Your task to perform on an android device: Go to network settings Image 0: 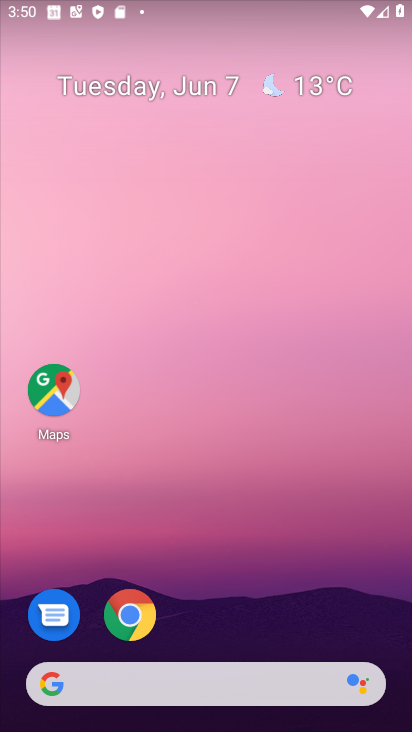
Step 0: drag from (212, 640) to (276, 2)
Your task to perform on an android device: Go to network settings Image 1: 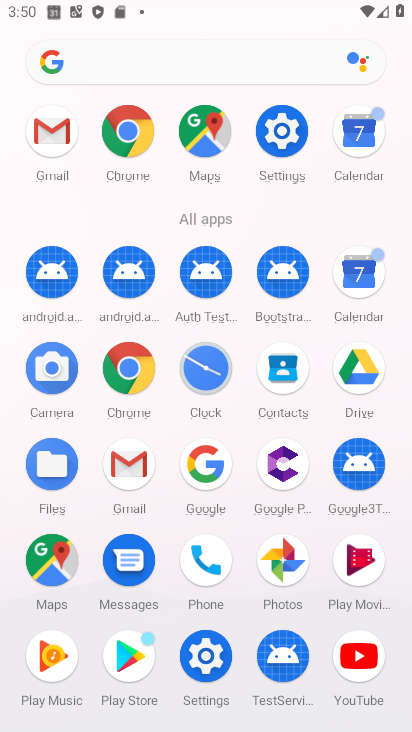
Step 1: click (202, 652)
Your task to perform on an android device: Go to network settings Image 2: 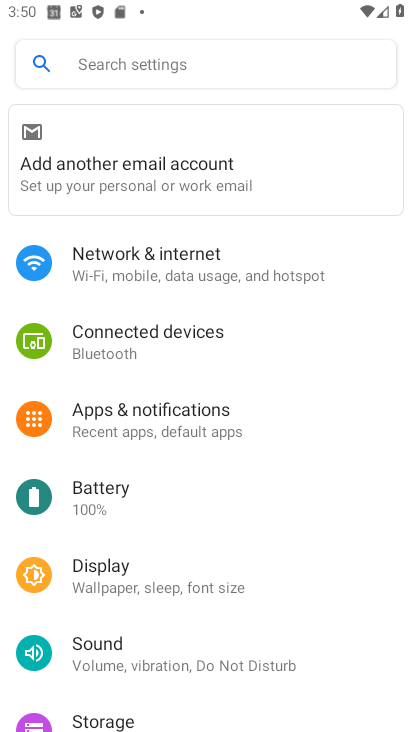
Step 2: click (178, 260)
Your task to perform on an android device: Go to network settings Image 3: 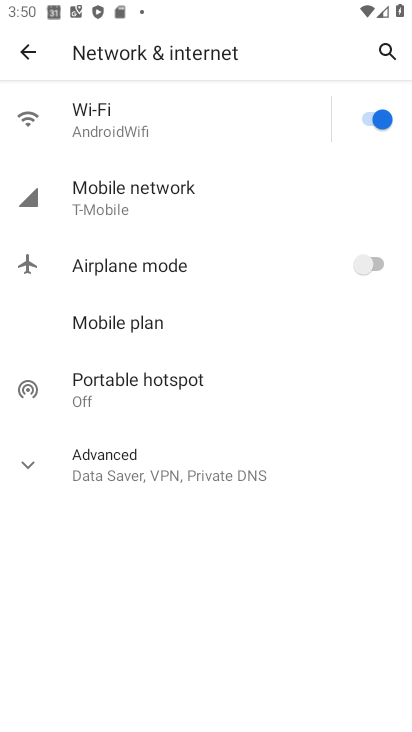
Step 3: task complete